Your task to perform on an android device: Go to ESPN.com Image 0: 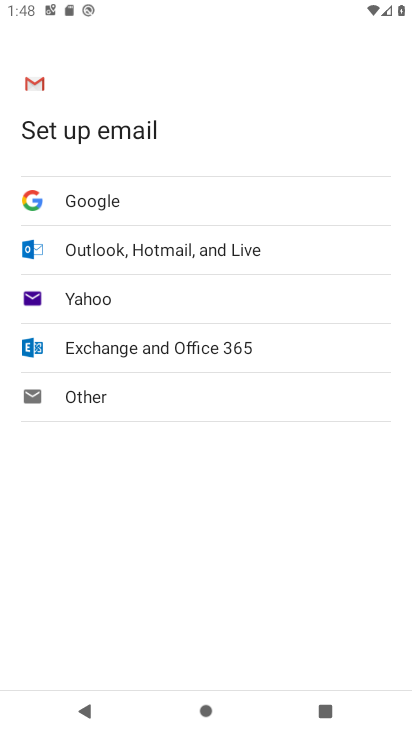
Step 0: press home button
Your task to perform on an android device: Go to ESPN.com Image 1: 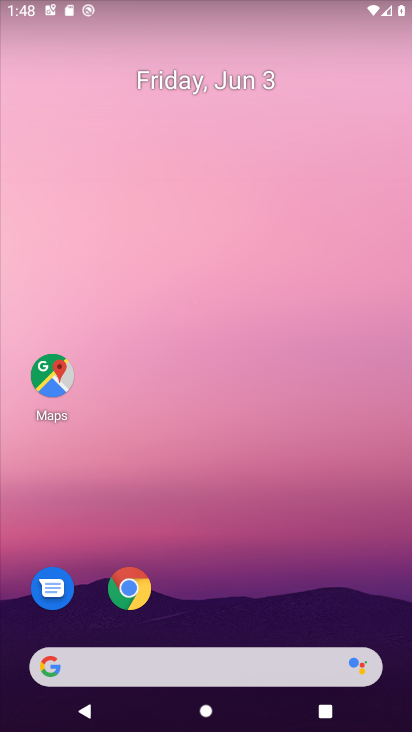
Step 1: drag from (166, 360) to (173, 0)
Your task to perform on an android device: Go to ESPN.com Image 2: 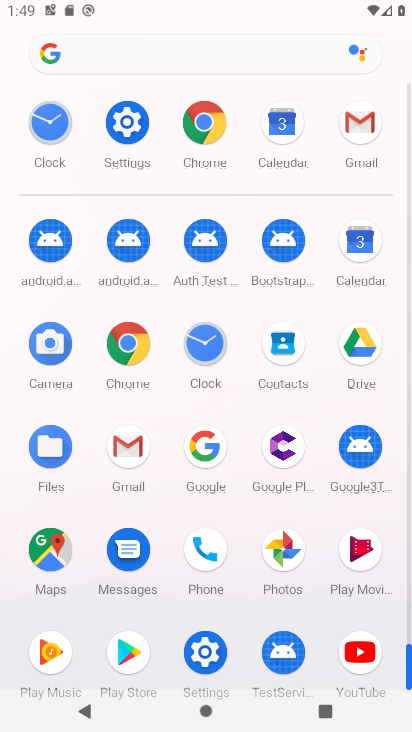
Step 2: click (199, 142)
Your task to perform on an android device: Go to ESPN.com Image 3: 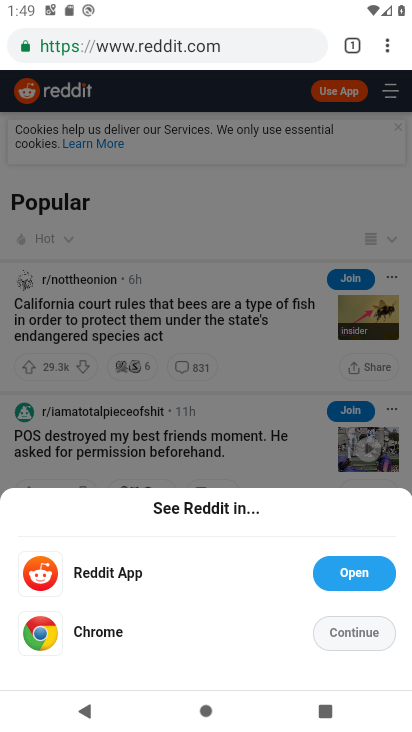
Step 3: click (156, 49)
Your task to perform on an android device: Go to ESPN.com Image 4: 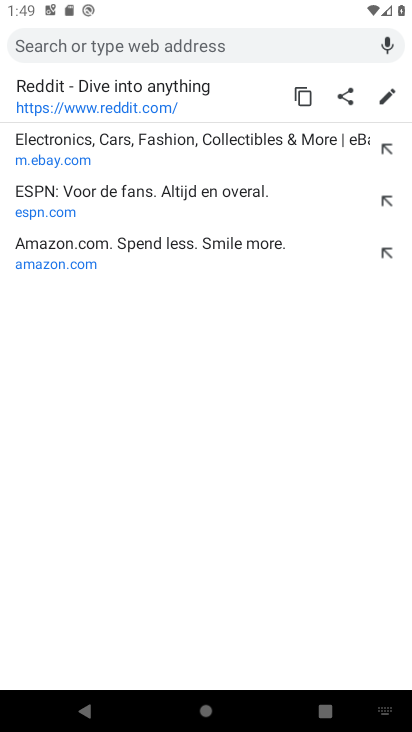
Step 4: click (171, 197)
Your task to perform on an android device: Go to ESPN.com Image 5: 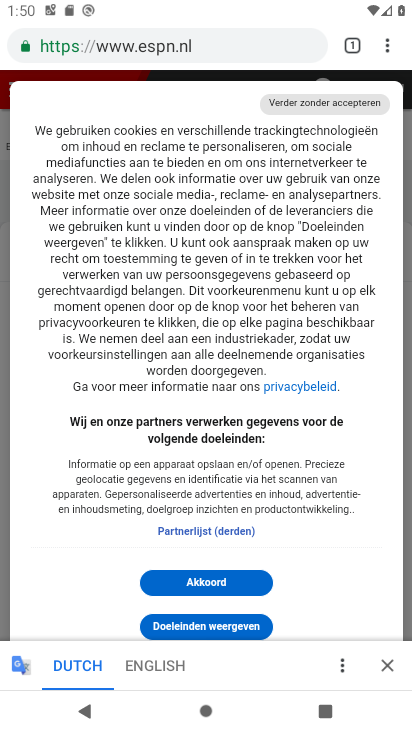
Step 5: task complete